Your task to perform on an android device: Open wifi settings Image 0: 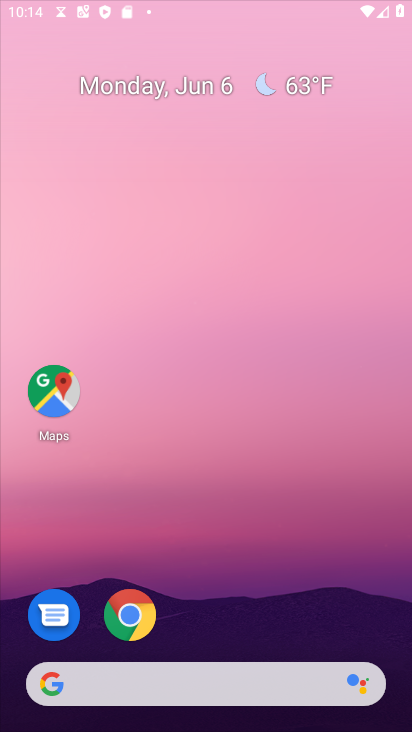
Step 0: press home button
Your task to perform on an android device: Open wifi settings Image 1: 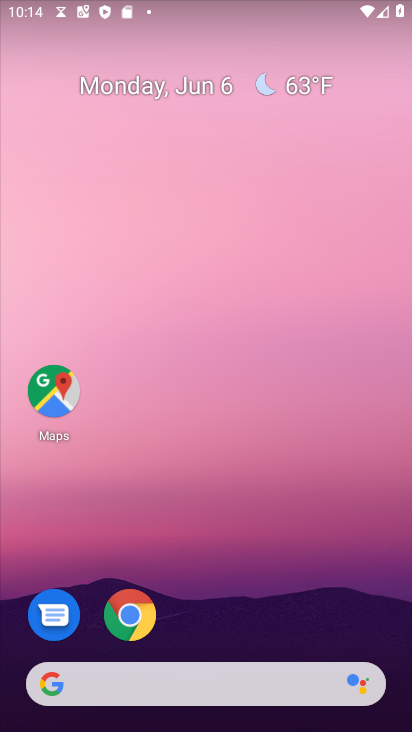
Step 1: drag from (222, 642) to (207, 28)
Your task to perform on an android device: Open wifi settings Image 2: 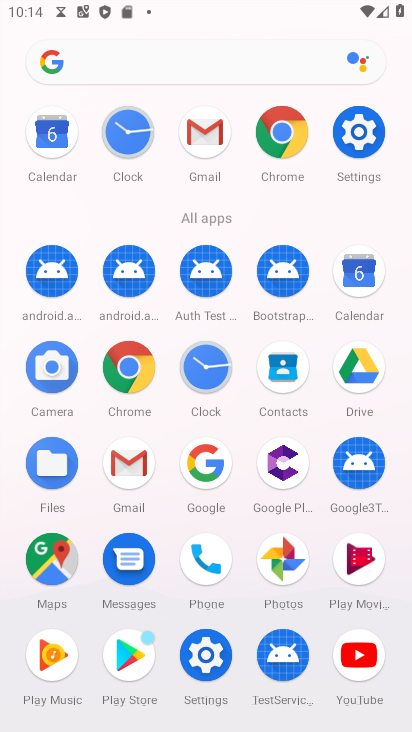
Step 2: click (359, 126)
Your task to perform on an android device: Open wifi settings Image 3: 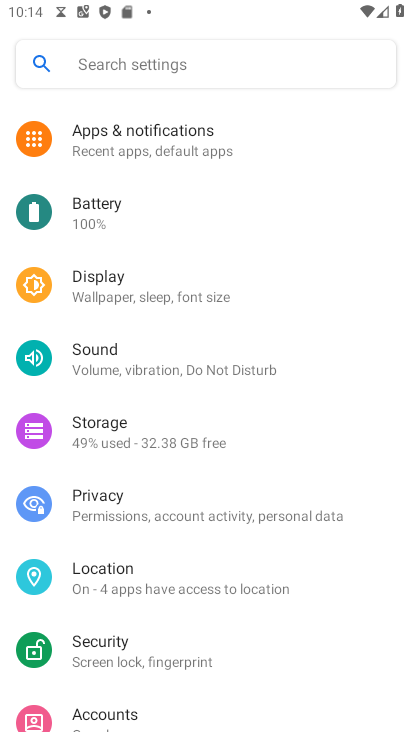
Step 3: drag from (143, 146) to (192, 566)
Your task to perform on an android device: Open wifi settings Image 4: 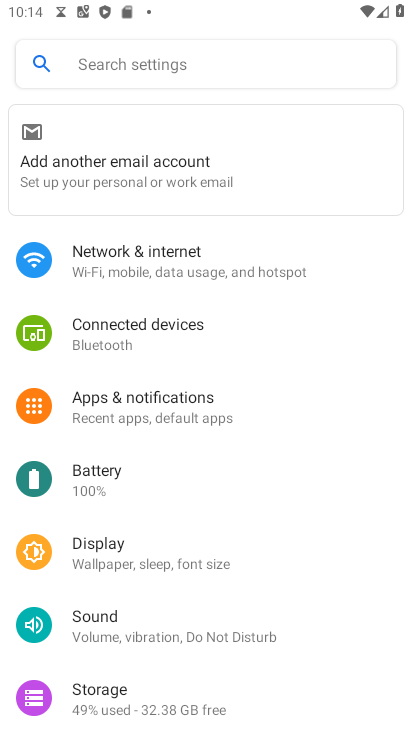
Step 4: click (192, 266)
Your task to perform on an android device: Open wifi settings Image 5: 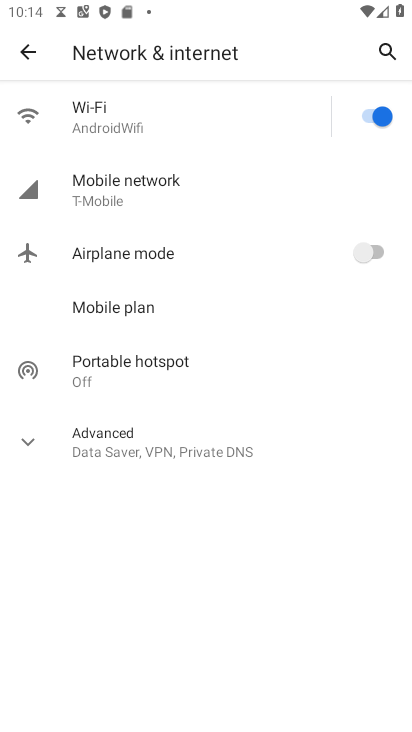
Step 5: click (138, 111)
Your task to perform on an android device: Open wifi settings Image 6: 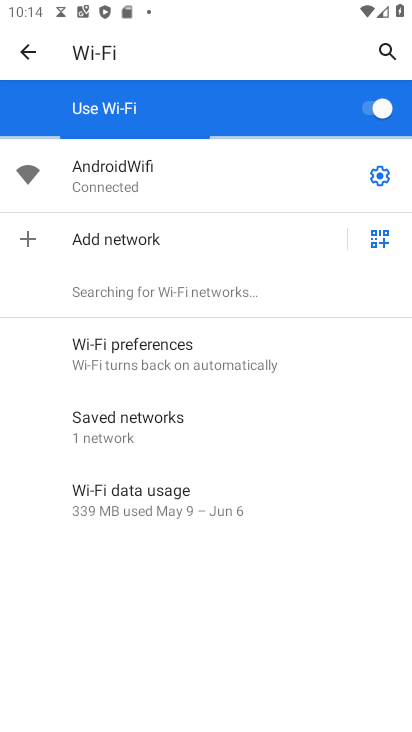
Step 6: task complete